Your task to perform on an android device: Go to Android settings Image 0: 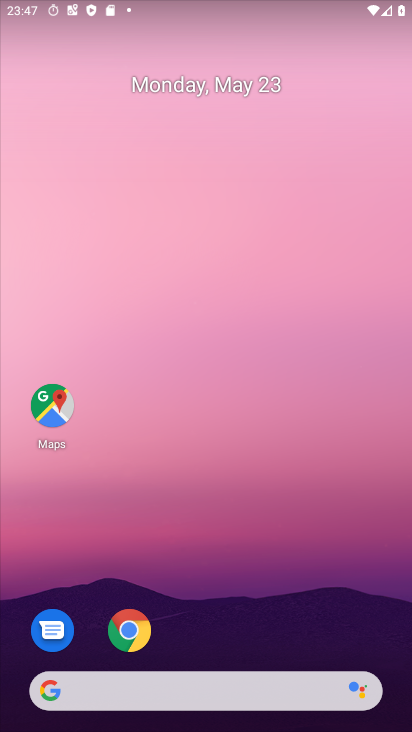
Step 0: drag from (285, 640) to (282, 19)
Your task to perform on an android device: Go to Android settings Image 1: 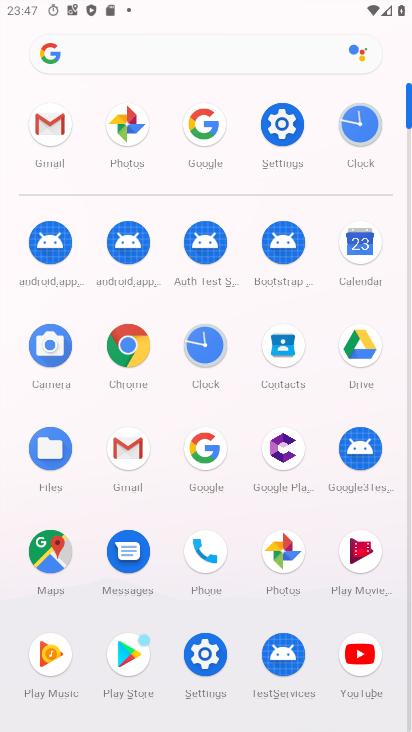
Step 1: click (275, 130)
Your task to perform on an android device: Go to Android settings Image 2: 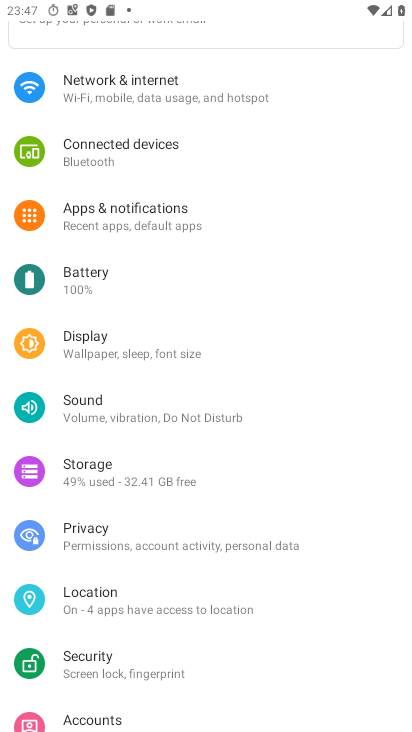
Step 2: task complete